Your task to perform on an android device: change the upload size in google photos Image 0: 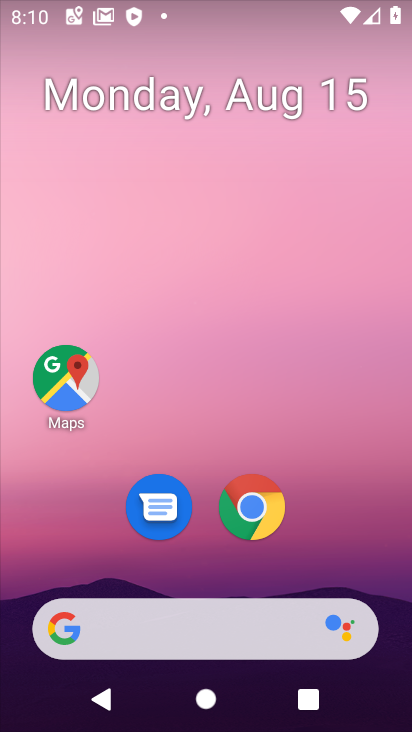
Step 0: drag from (189, 594) to (160, 58)
Your task to perform on an android device: change the upload size in google photos Image 1: 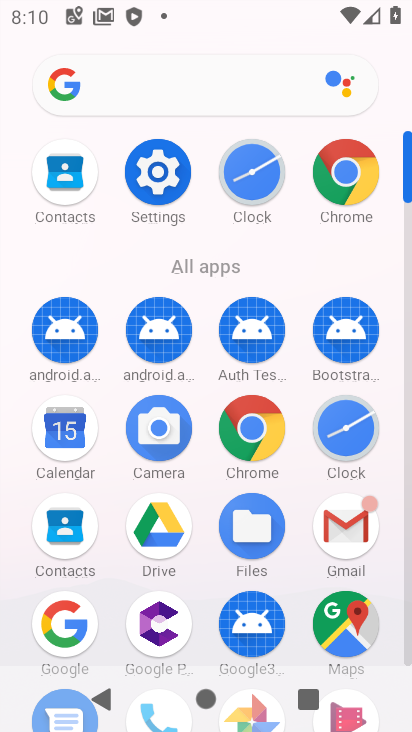
Step 1: click (408, 659)
Your task to perform on an android device: change the upload size in google photos Image 2: 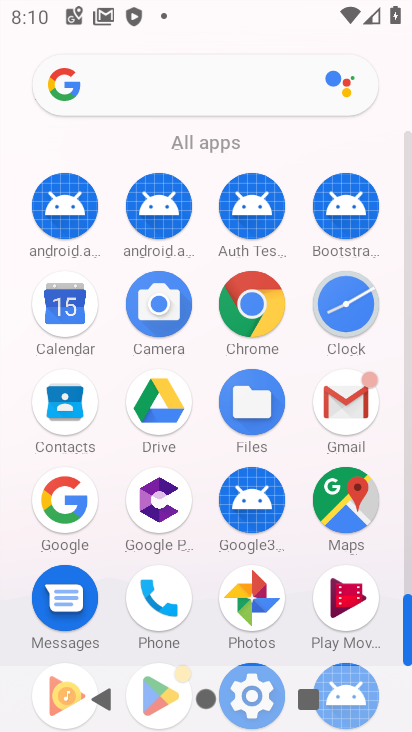
Step 2: click (268, 619)
Your task to perform on an android device: change the upload size in google photos Image 3: 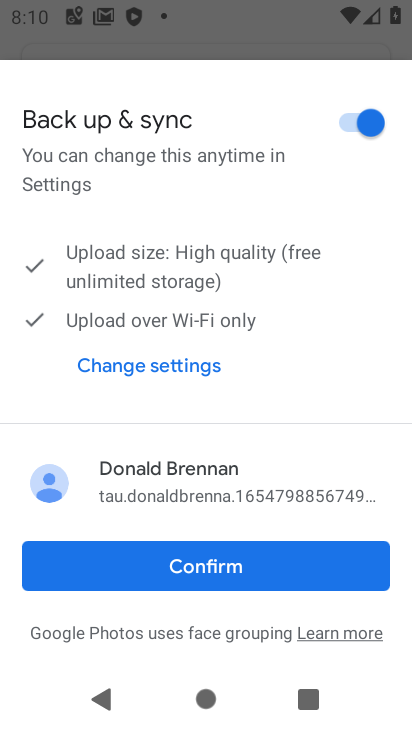
Step 3: click (301, 585)
Your task to perform on an android device: change the upload size in google photos Image 4: 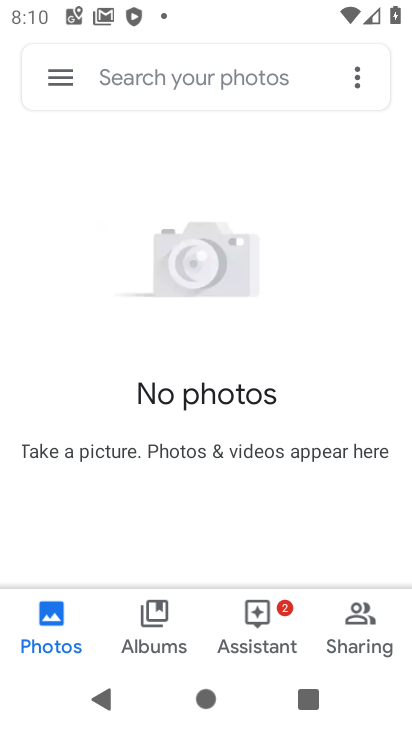
Step 4: task complete